Your task to perform on an android device: Go to settings Image 0: 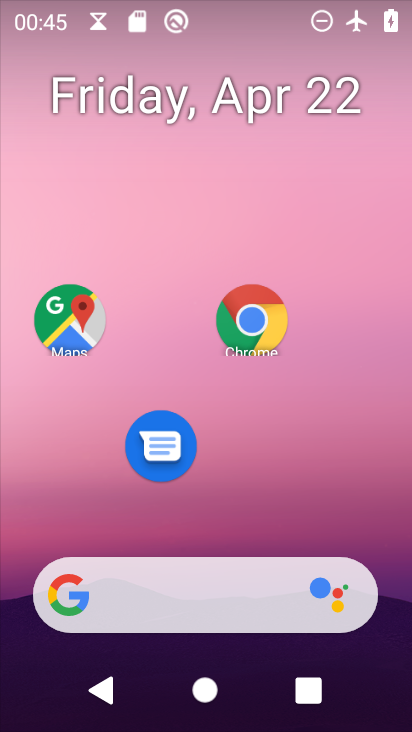
Step 0: click (205, 128)
Your task to perform on an android device: Go to settings Image 1: 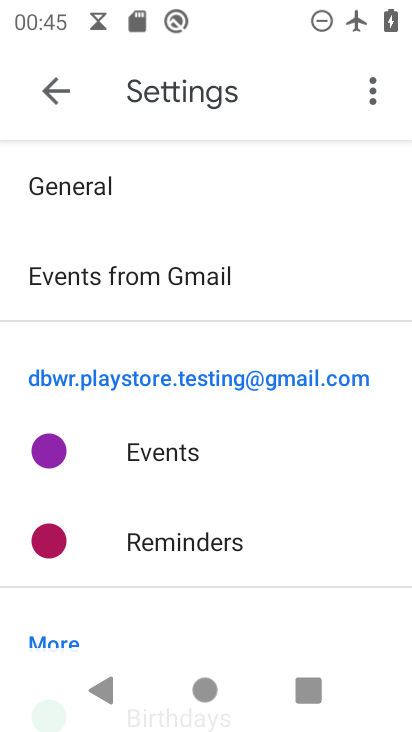
Step 1: drag from (213, 543) to (292, 176)
Your task to perform on an android device: Go to settings Image 2: 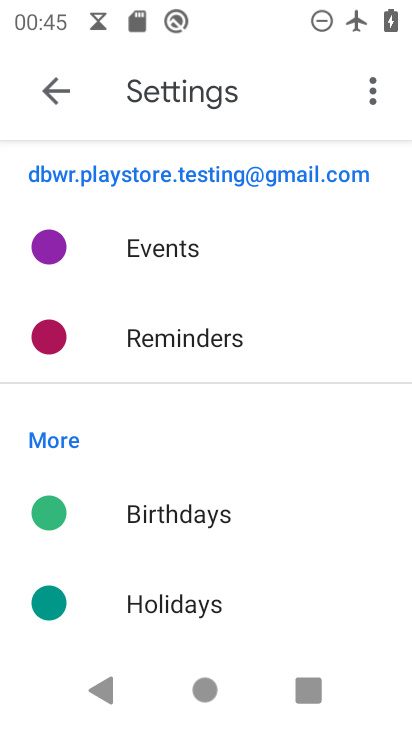
Step 2: press home button
Your task to perform on an android device: Go to settings Image 3: 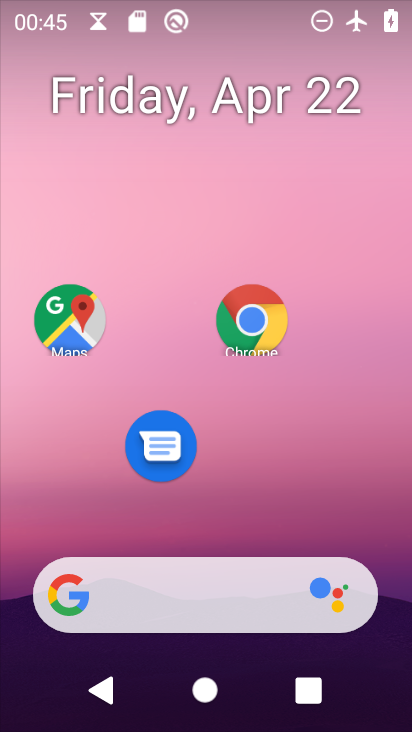
Step 3: drag from (232, 524) to (207, 0)
Your task to perform on an android device: Go to settings Image 4: 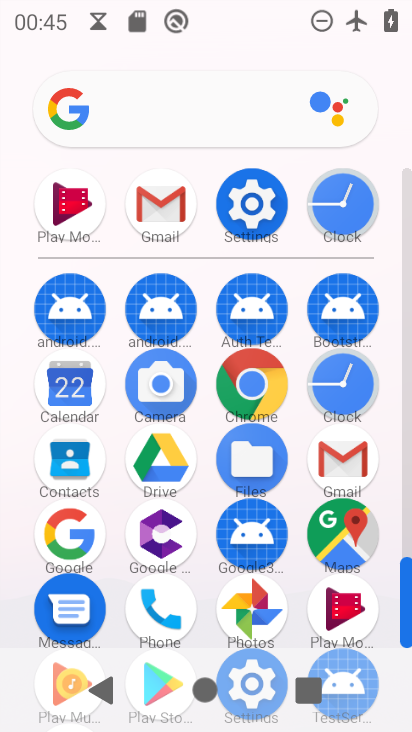
Step 4: click (250, 212)
Your task to perform on an android device: Go to settings Image 5: 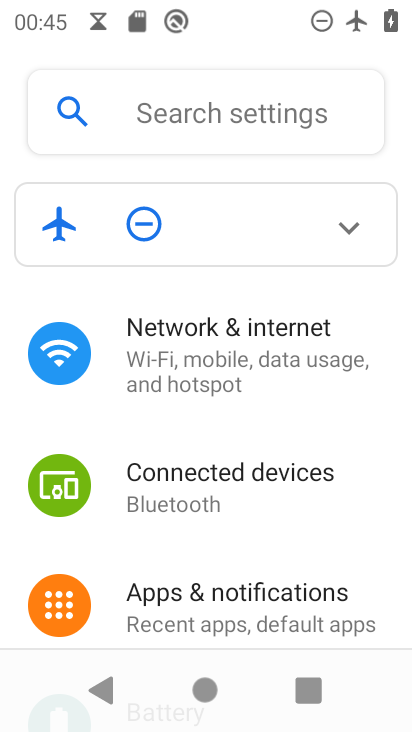
Step 5: task complete